Your task to perform on an android device: Open Maps and search for coffee Image 0: 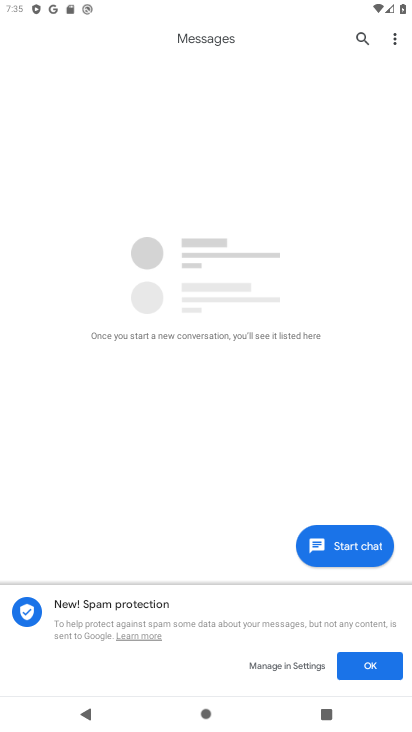
Step 0: drag from (200, 606) to (140, 181)
Your task to perform on an android device: Open Maps and search for coffee Image 1: 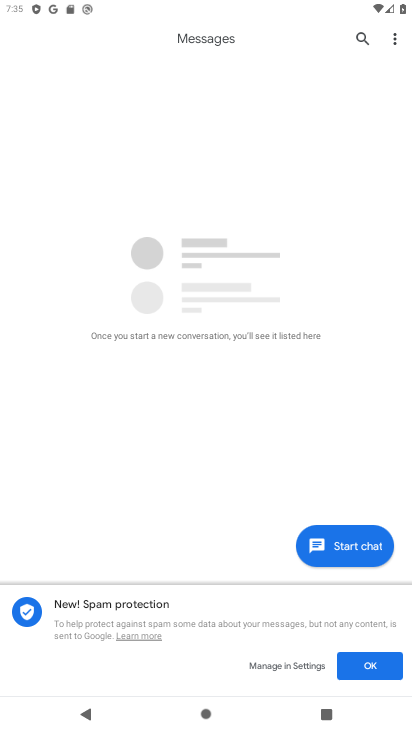
Step 1: press back button
Your task to perform on an android device: Open Maps and search for coffee Image 2: 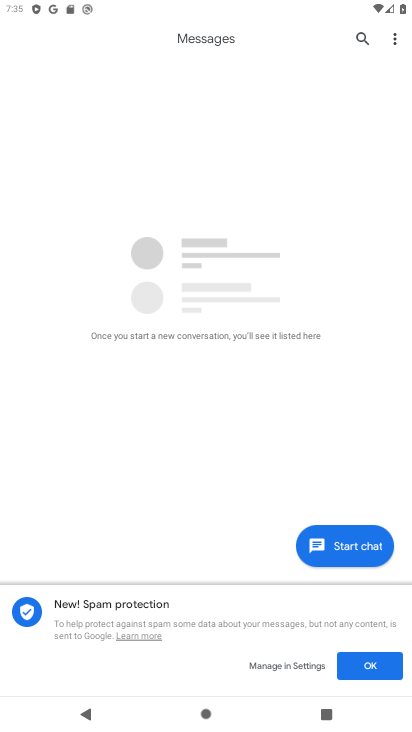
Step 2: press back button
Your task to perform on an android device: Open Maps and search for coffee Image 3: 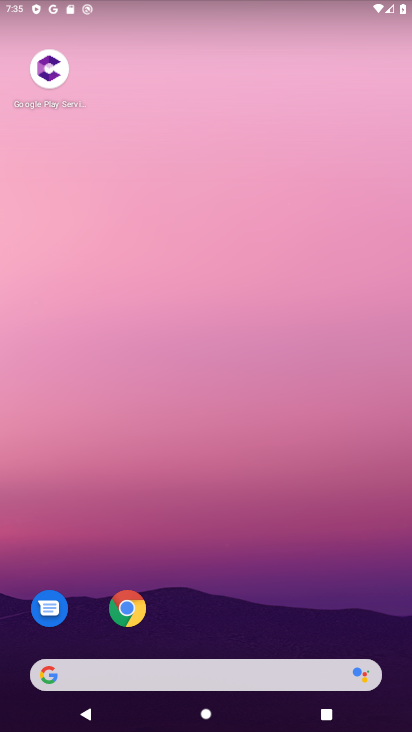
Step 3: drag from (244, 598) to (212, 127)
Your task to perform on an android device: Open Maps and search for coffee Image 4: 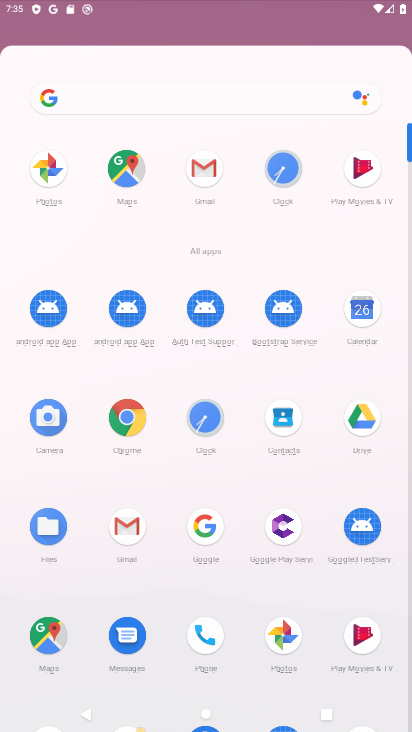
Step 4: drag from (270, 560) to (209, 163)
Your task to perform on an android device: Open Maps and search for coffee Image 5: 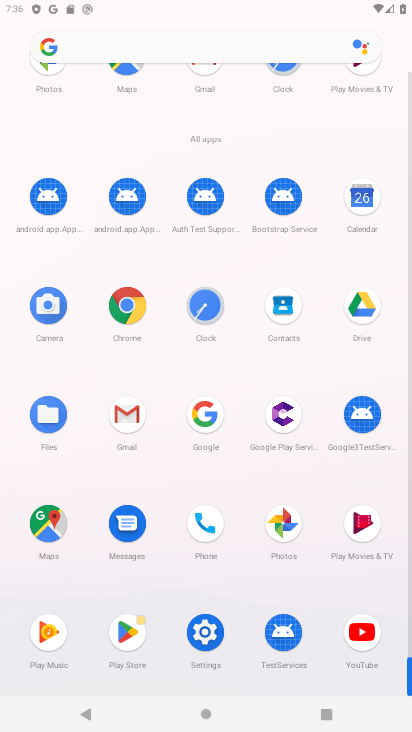
Step 5: click (56, 529)
Your task to perform on an android device: Open Maps and search for coffee Image 6: 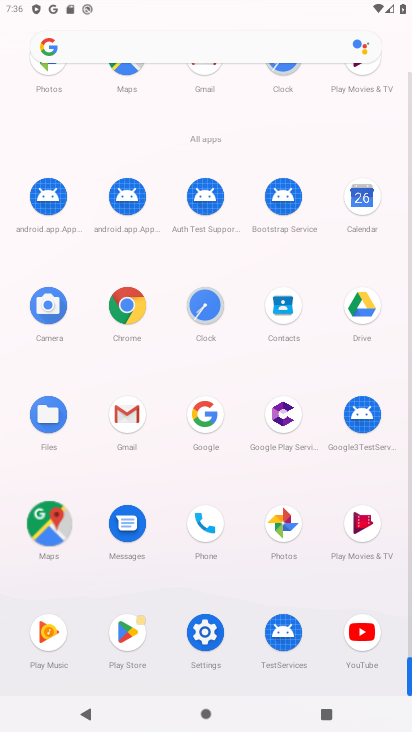
Step 6: click (56, 531)
Your task to perform on an android device: Open Maps and search for coffee Image 7: 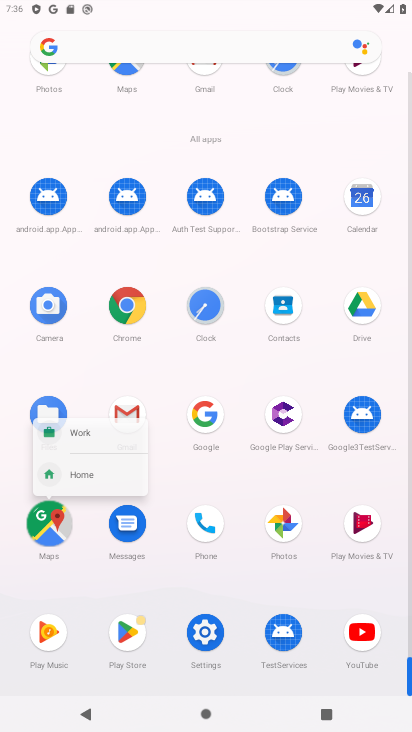
Step 7: click (56, 531)
Your task to perform on an android device: Open Maps and search for coffee Image 8: 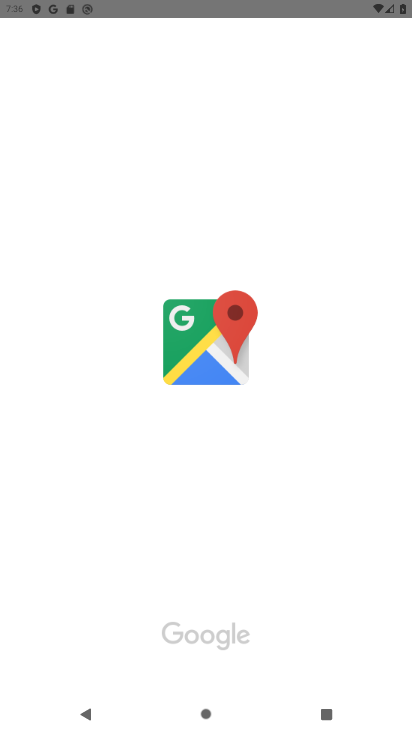
Step 8: click (56, 531)
Your task to perform on an android device: Open Maps and search for coffee Image 9: 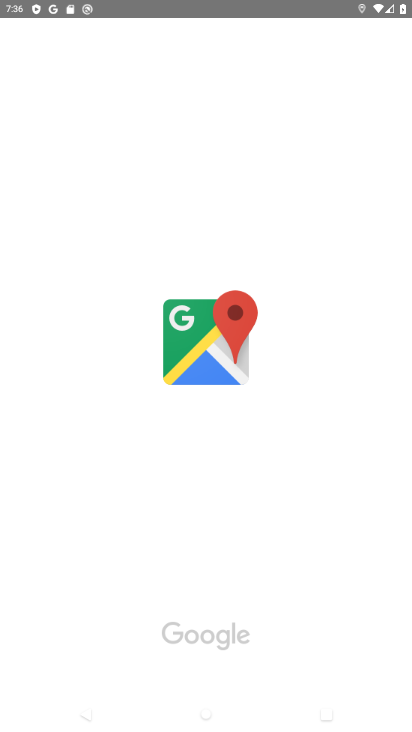
Step 9: click (54, 524)
Your task to perform on an android device: Open Maps and search for coffee Image 10: 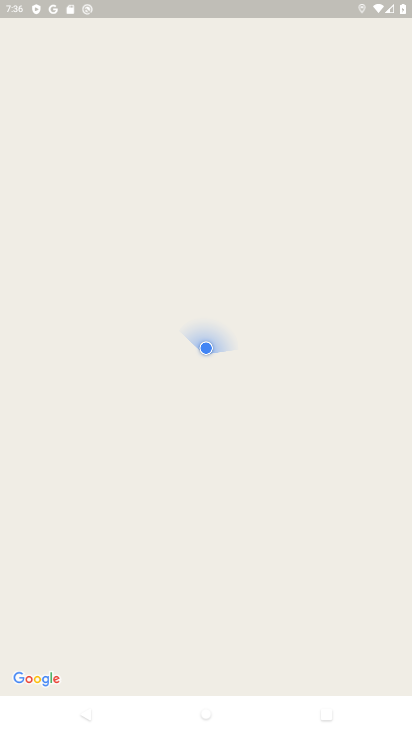
Step 10: click (200, 322)
Your task to perform on an android device: Open Maps and search for coffee Image 11: 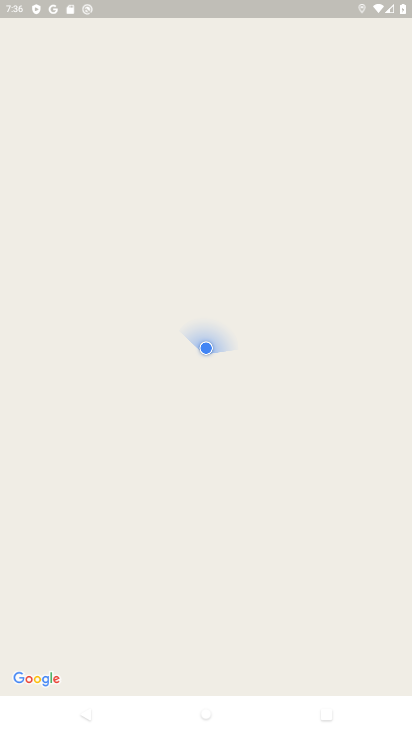
Step 11: drag from (91, 87) to (219, 364)
Your task to perform on an android device: Open Maps and search for coffee Image 12: 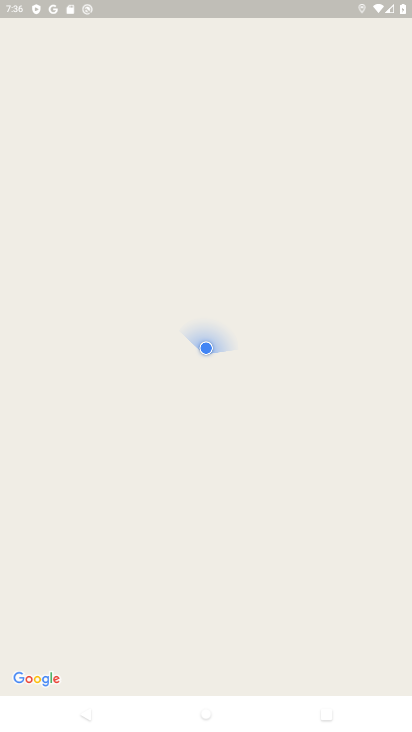
Step 12: drag from (161, 165) to (146, 369)
Your task to perform on an android device: Open Maps and search for coffee Image 13: 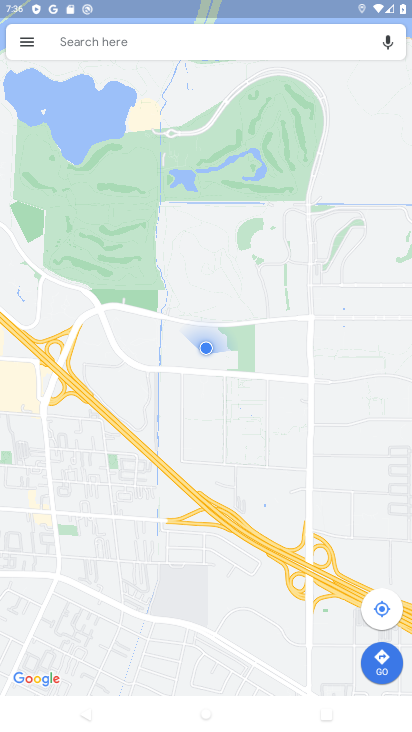
Step 13: drag from (113, 246) to (113, 392)
Your task to perform on an android device: Open Maps and search for coffee Image 14: 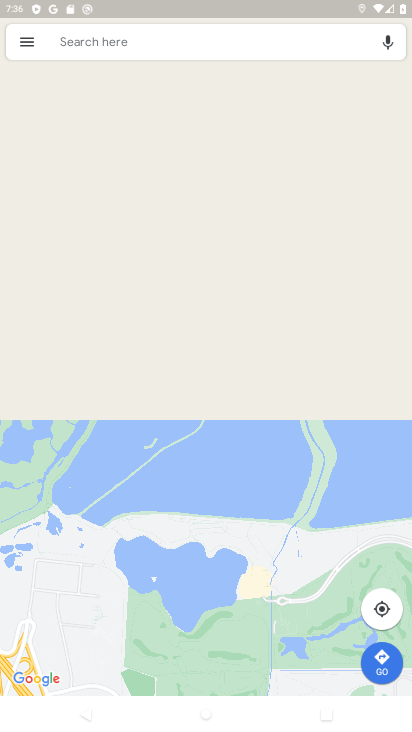
Step 14: drag from (90, 111) to (97, 184)
Your task to perform on an android device: Open Maps and search for coffee Image 15: 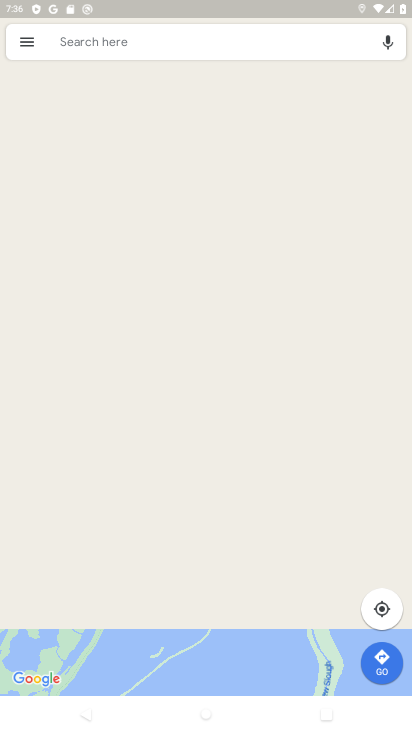
Step 15: click (63, 40)
Your task to perform on an android device: Open Maps and search for coffee Image 16: 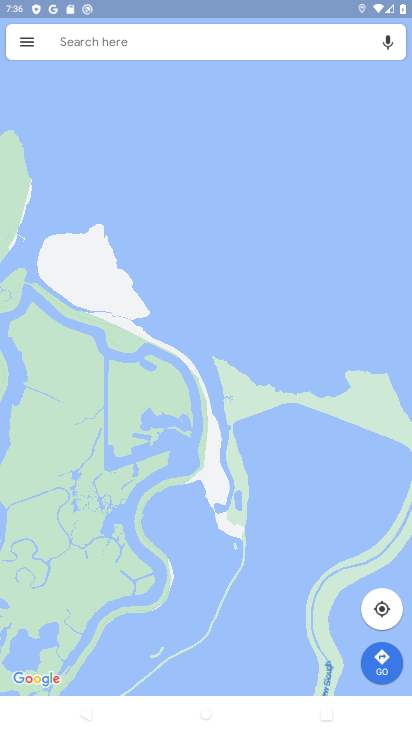
Step 16: click (63, 39)
Your task to perform on an android device: Open Maps and search for coffee Image 17: 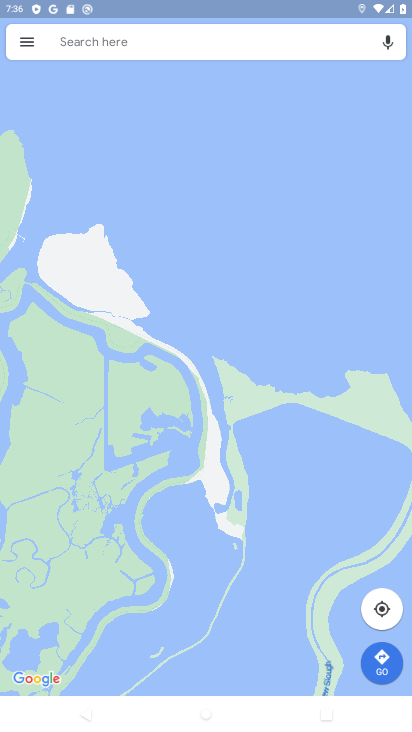
Step 17: click (63, 39)
Your task to perform on an android device: Open Maps and search for coffee Image 18: 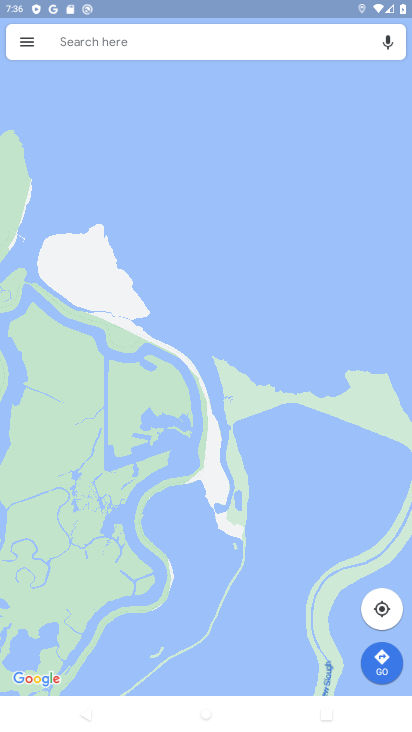
Step 18: click (63, 39)
Your task to perform on an android device: Open Maps and search for coffee Image 19: 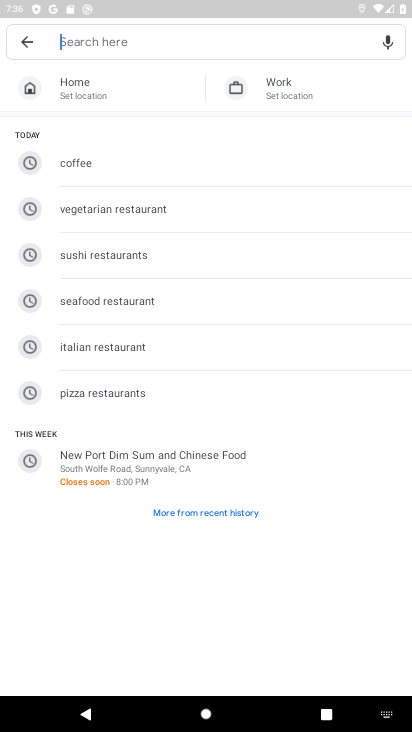
Step 19: click (98, 156)
Your task to perform on an android device: Open Maps and search for coffee Image 20: 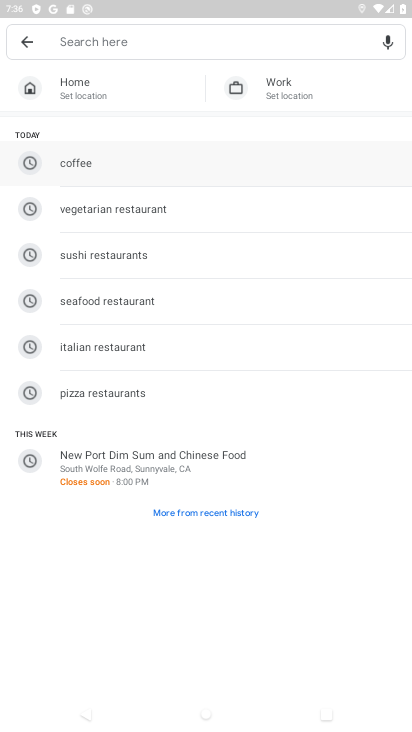
Step 20: click (98, 168)
Your task to perform on an android device: Open Maps and search for coffee Image 21: 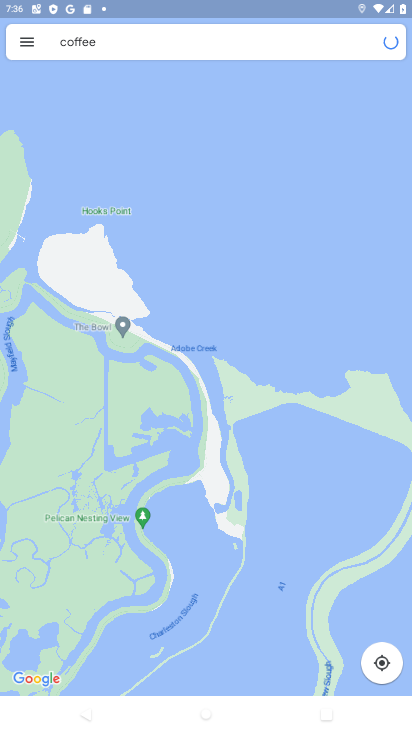
Step 21: task complete